Your task to perform on an android device: Check the weather Image 0: 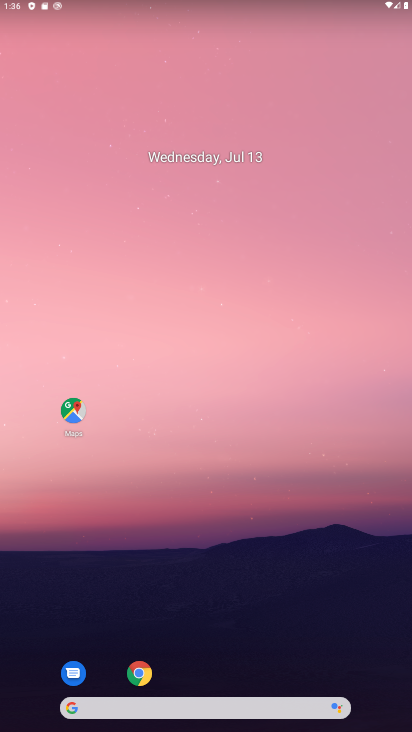
Step 0: click (207, 701)
Your task to perform on an android device: Check the weather Image 1: 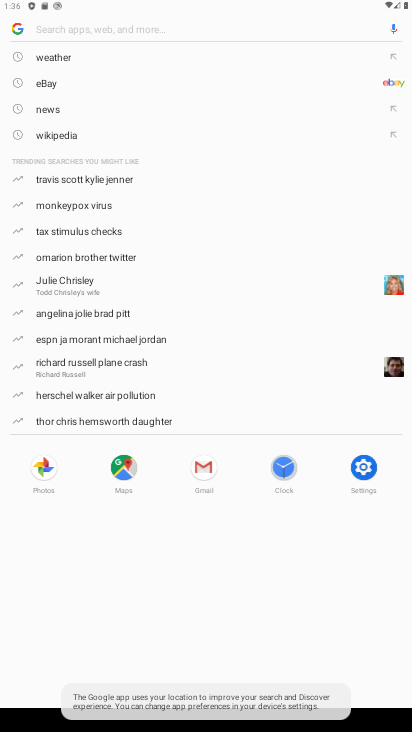
Step 1: click (65, 28)
Your task to perform on an android device: Check the weather Image 2: 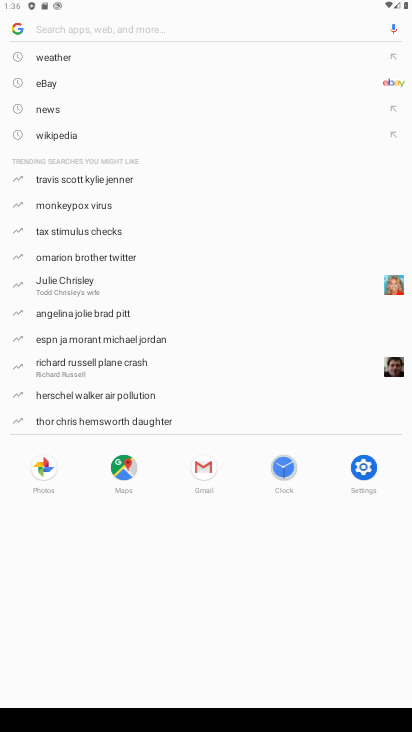
Step 2: click (55, 63)
Your task to perform on an android device: Check the weather Image 3: 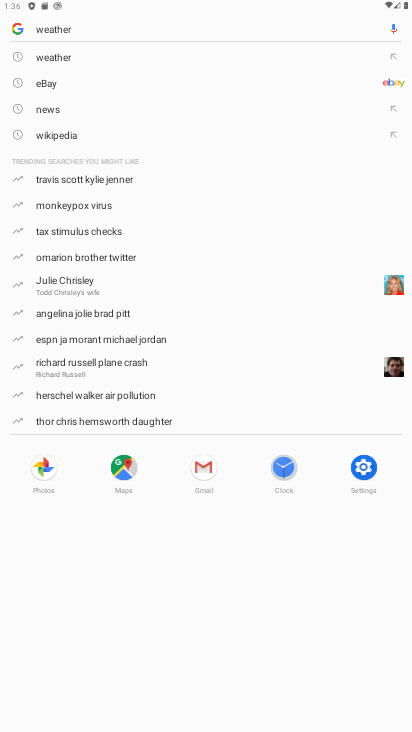
Step 3: click (55, 52)
Your task to perform on an android device: Check the weather Image 4: 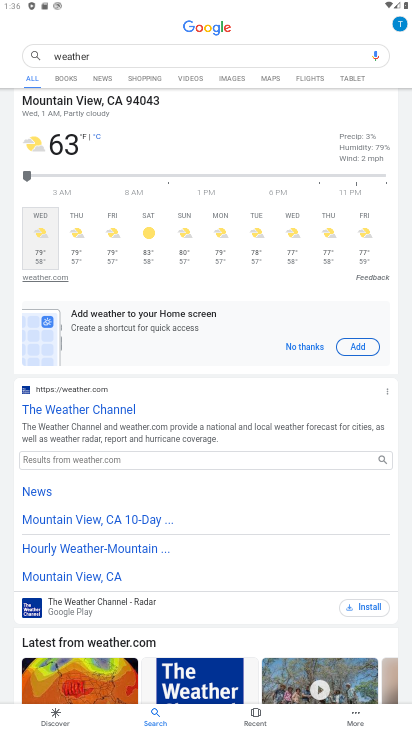
Step 4: task complete